Your task to perform on an android device: What's on my calendar tomorrow? Image 0: 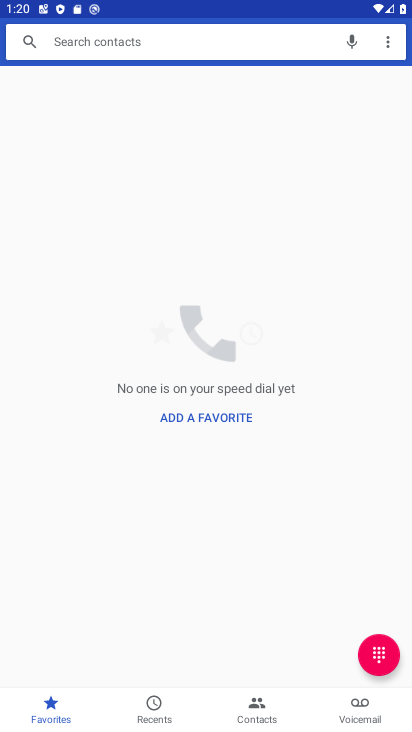
Step 0: press back button
Your task to perform on an android device: What's on my calendar tomorrow? Image 1: 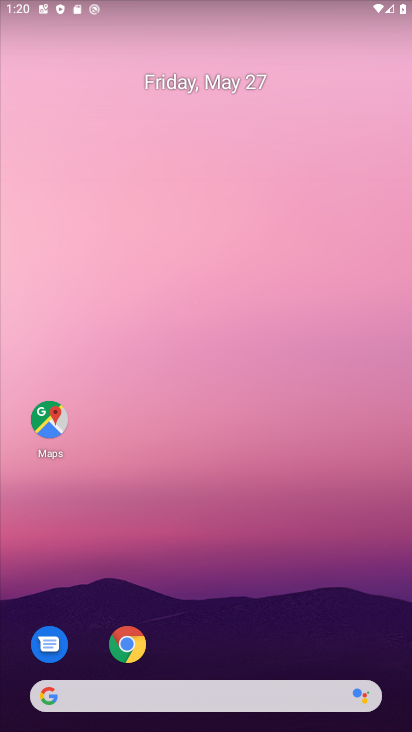
Step 1: drag from (239, 612) to (194, 111)
Your task to perform on an android device: What's on my calendar tomorrow? Image 2: 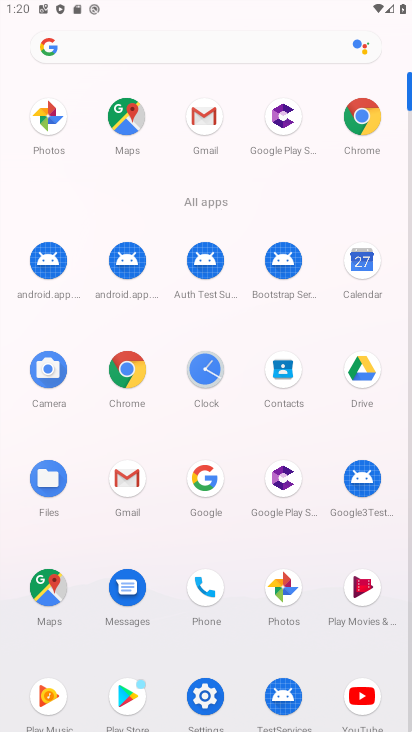
Step 2: click (359, 256)
Your task to perform on an android device: What's on my calendar tomorrow? Image 3: 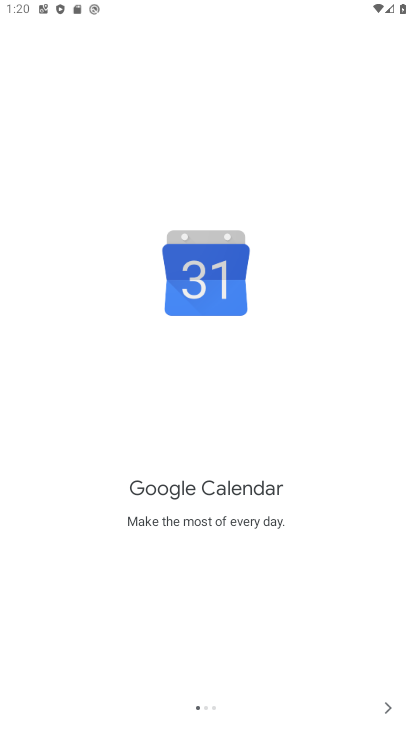
Step 3: click (381, 708)
Your task to perform on an android device: What's on my calendar tomorrow? Image 4: 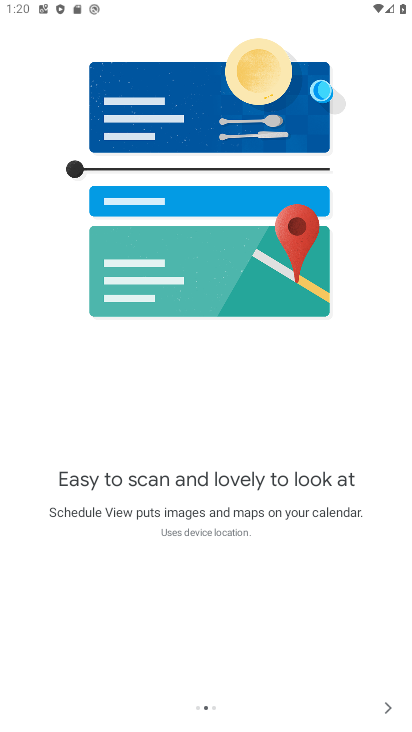
Step 4: click (378, 702)
Your task to perform on an android device: What's on my calendar tomorrow? Image 5: 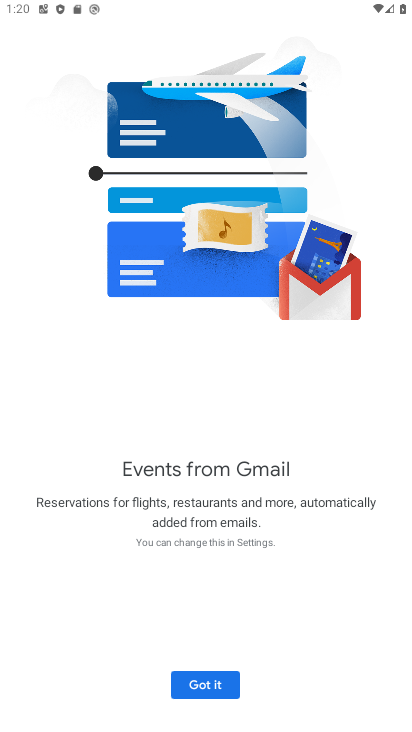
Step 5: click (191, 686)
Your task to perform on an android device: What's on my calendar tomorrow? Image 6: 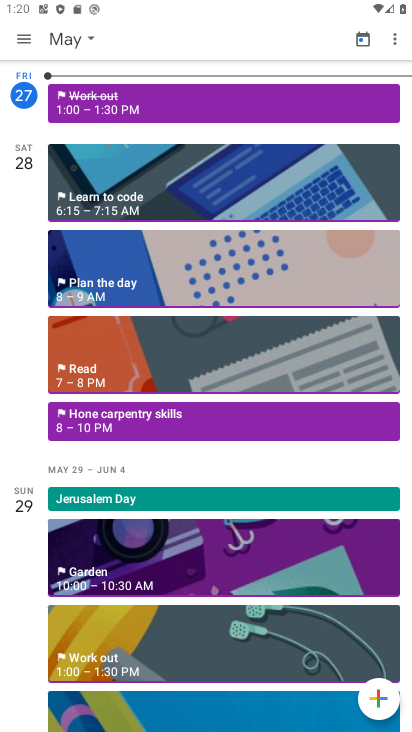
Step 6: click (73, 34)
Your task to perform on an android device: What's on my calendar tomorrow? Image 7: 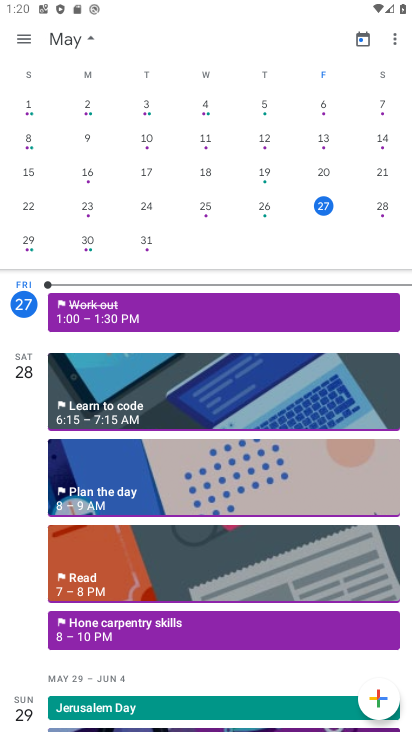
Step 7: click (378, 202)
Your task to perform on an android device: What's on my calendar tomorrow? Image 8: 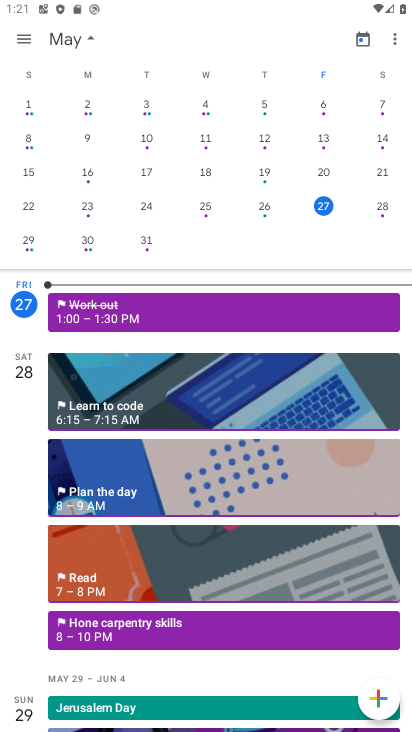
Step 8: click (379, 203)
Your task to perform on an android device: What's on my calendar tomorrow? Image 9: 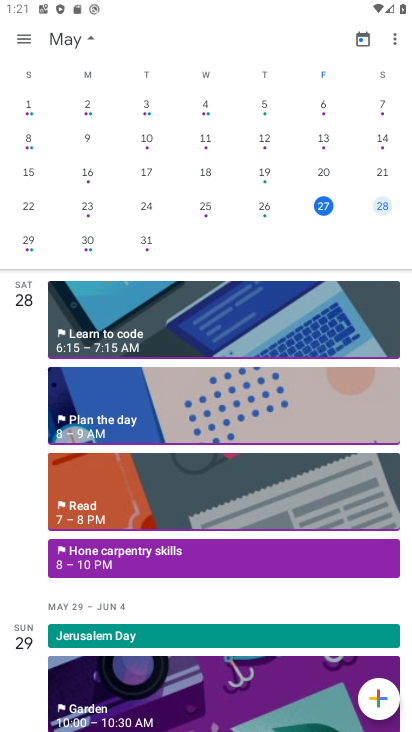
Step 9: click (27, 43)
Your task to perform on an android device: What's on my calendar tomorrow? Image 10: 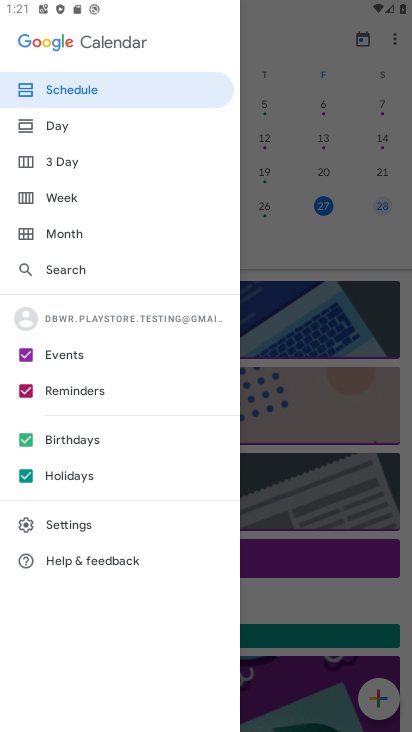
Step 10: click (61, 122)
Your task to perform on an android device: What's on my calendar tomorrow? Image 11: 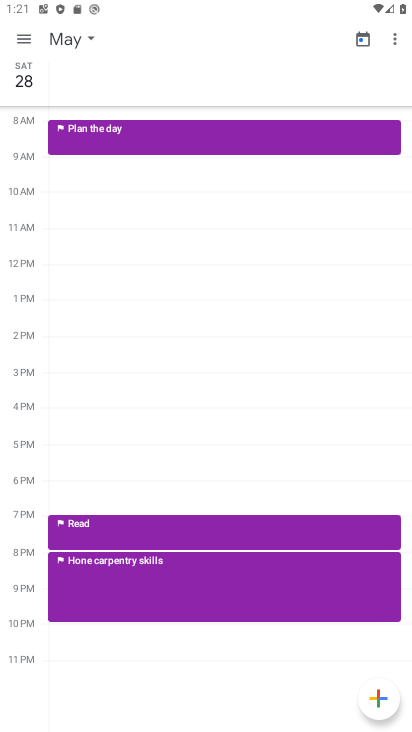
Step 11: task complete